Your task to perform on an android device: set default search engine in the chrome app Image 0: 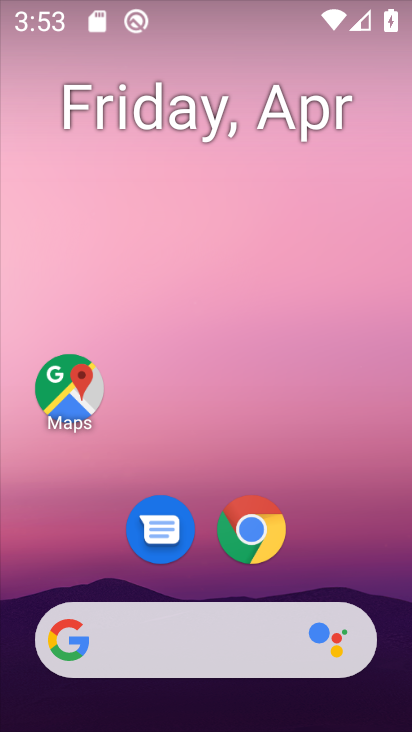
Step 0: drag from (315, 512) to (330, 122)
Your task to perform on an android device: set default search engine in the chrome app Image 1: 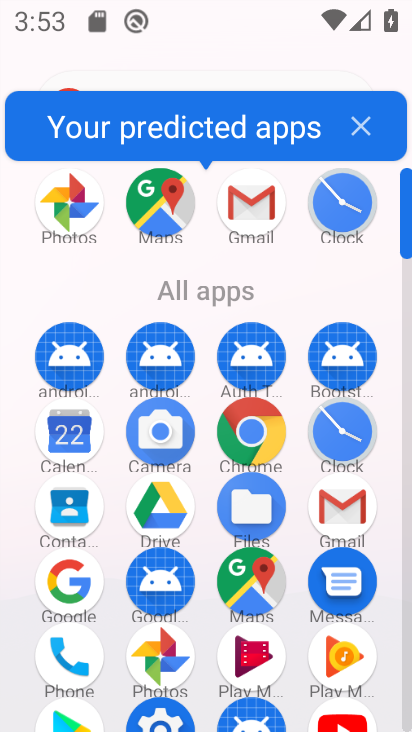
Step 1: drag from (304, 306) to (322, 47)
Your task to perform on an android device: set default search engine in the chrome app Image 2: 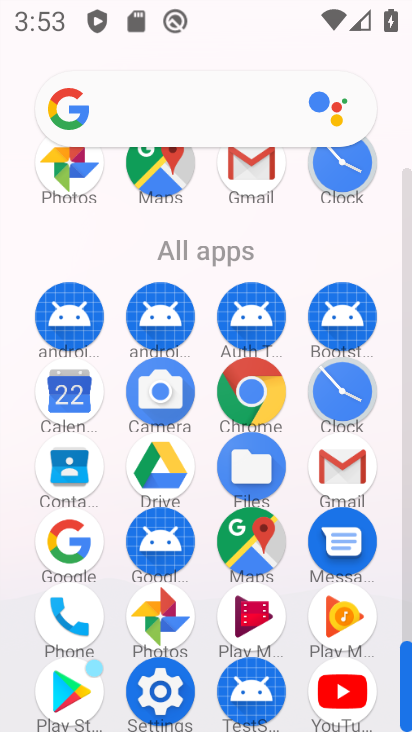
Step 2: click (257, 398)
Your task to perform on an android device: set default search engine in the chrome app Image 3: 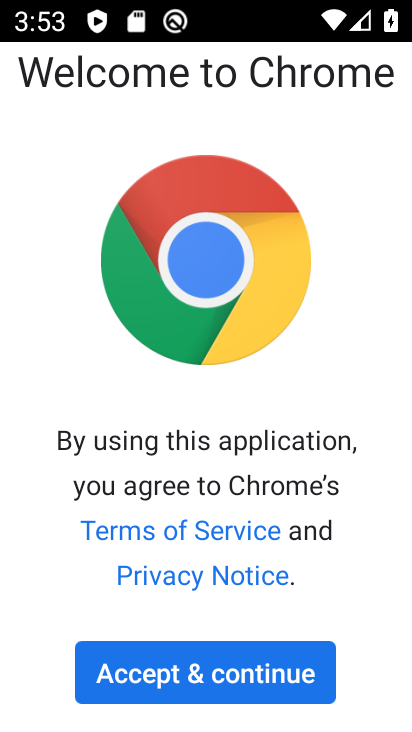
Step 3: click (277, 666)
Your task to perform on an android device: set default search engine in the chrome app Image 4: 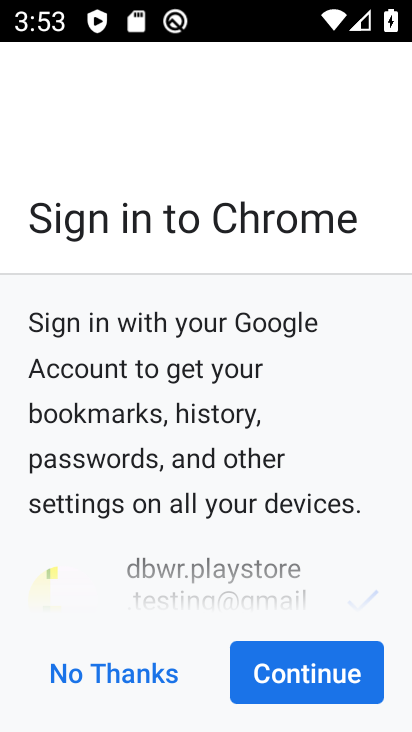
Step 4: click (313, 668)
Your task to perform on an android device: set default search engine in the chrome app Image 5: 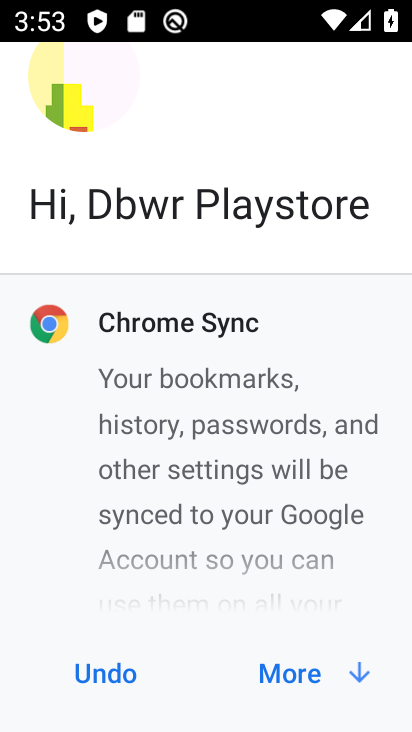
Step 5: click (295, 669)
Your task to perform on an android device: set default search engine in the chrome app Image 6: 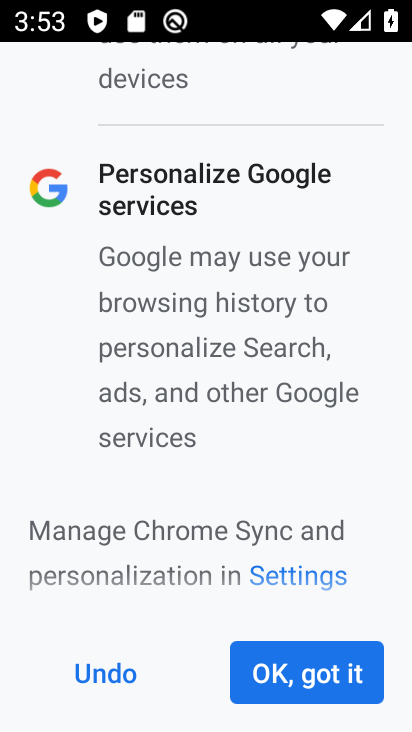
Step 6: click (294, 672)
Your task to perform on an android device: set default search engine in the chrome app Image 7: 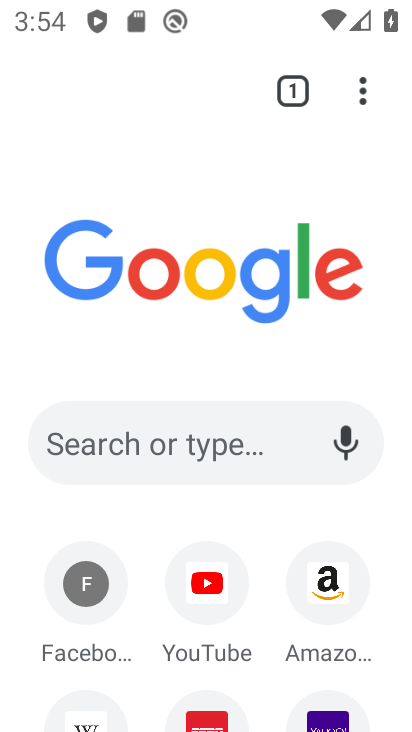
Step 7: drag from (362, 94) to (159, 568)
Your task to perform on an android device: set default search engine in the chrome app Image 8: 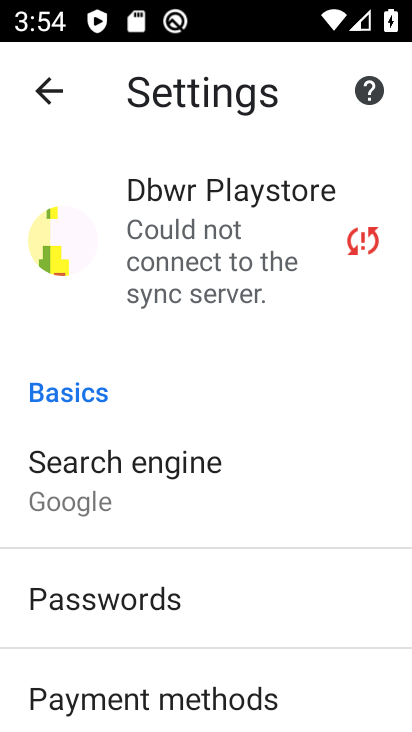
Step 8: click (118, 474)
Your task to perform on an android device: set default search engine in the chrome app Image 9: 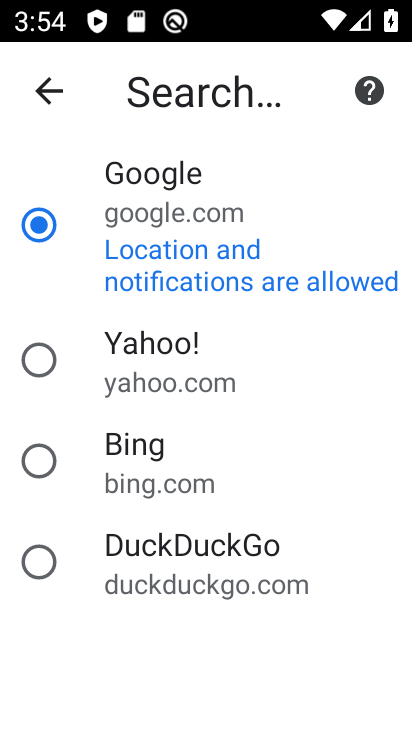
Step 9: task complete